Your task to perform on an android device: turn on the 24-hour format for clock Image 0: 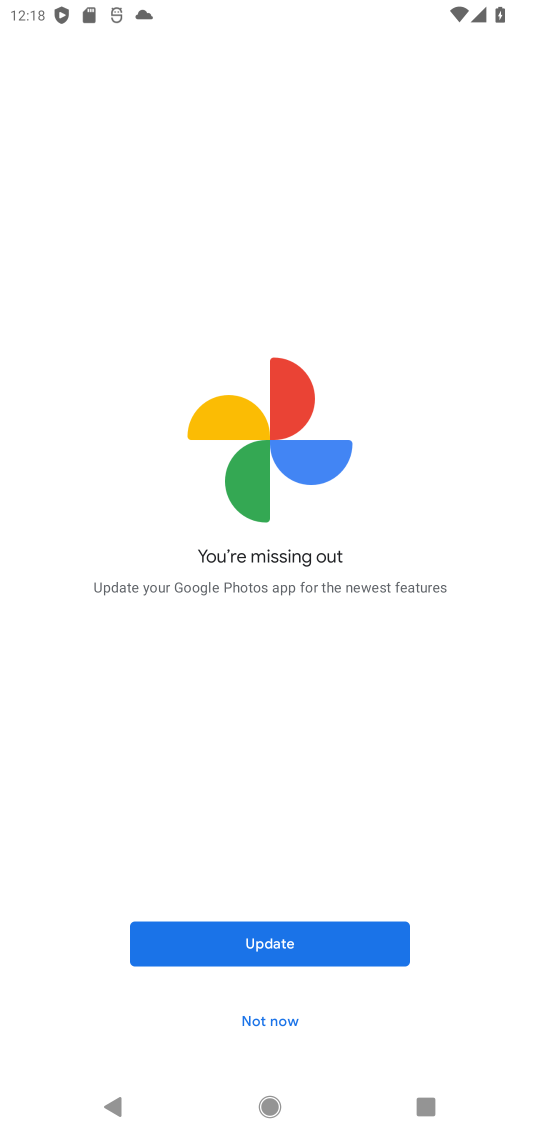
Step 0: press home button
Your task to perform on an android device: turn on the 24-hour format for clock Image 1: 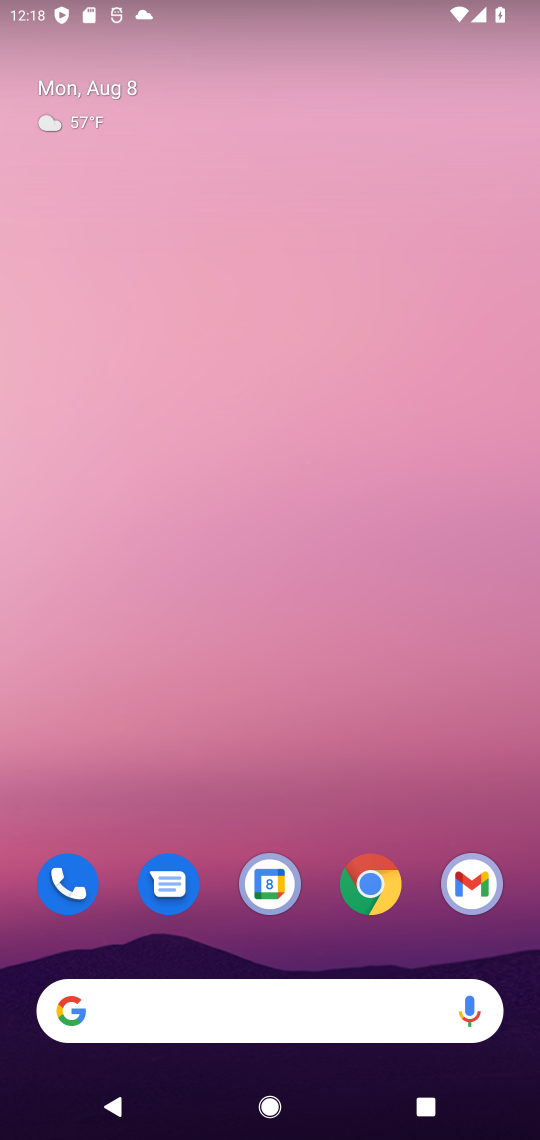
Step 1: drag from (330, 890) to (407, 278)
Your task to perform on an android device: turn on the 24-hour format for clock Image 2: 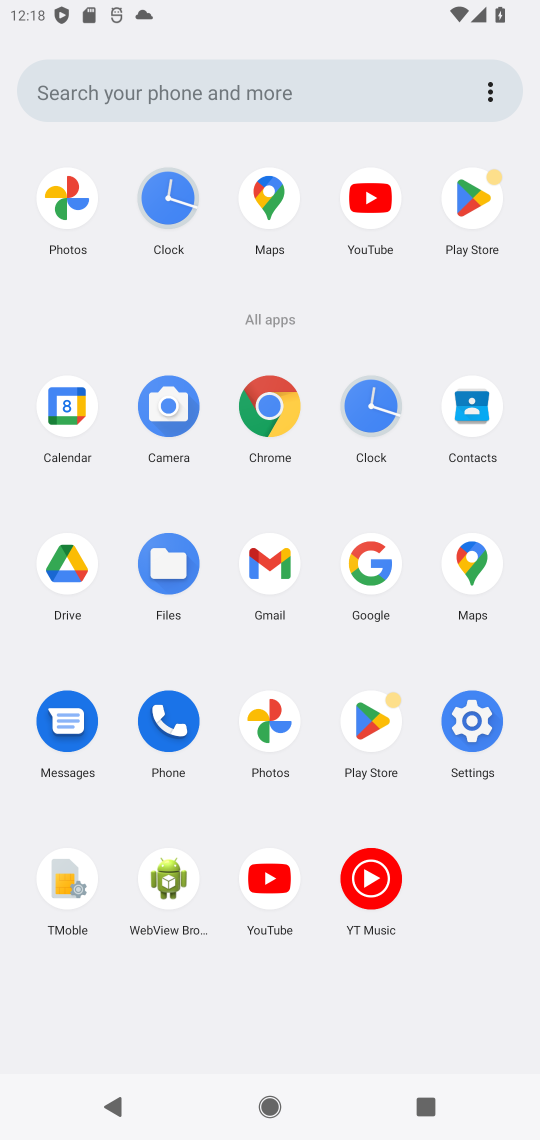
Step 2: click (374, 410)
Your task to perform on an android device: turn on the 24-hour format for clock Image 3: 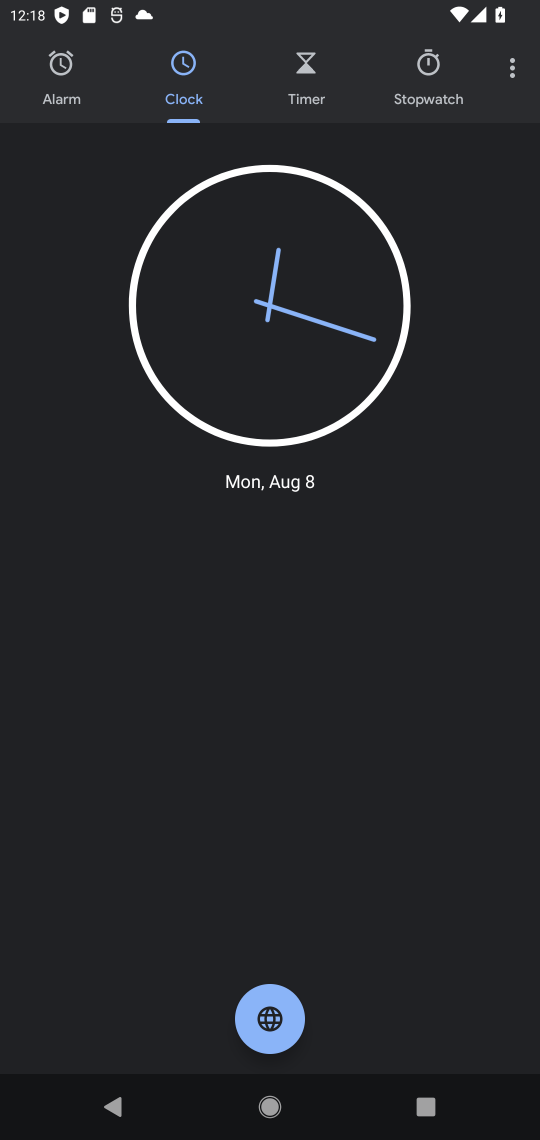
Step 3: click (524, 81)
Your task to perform on an android device: turn on the 24-hour format for clock Image 4: 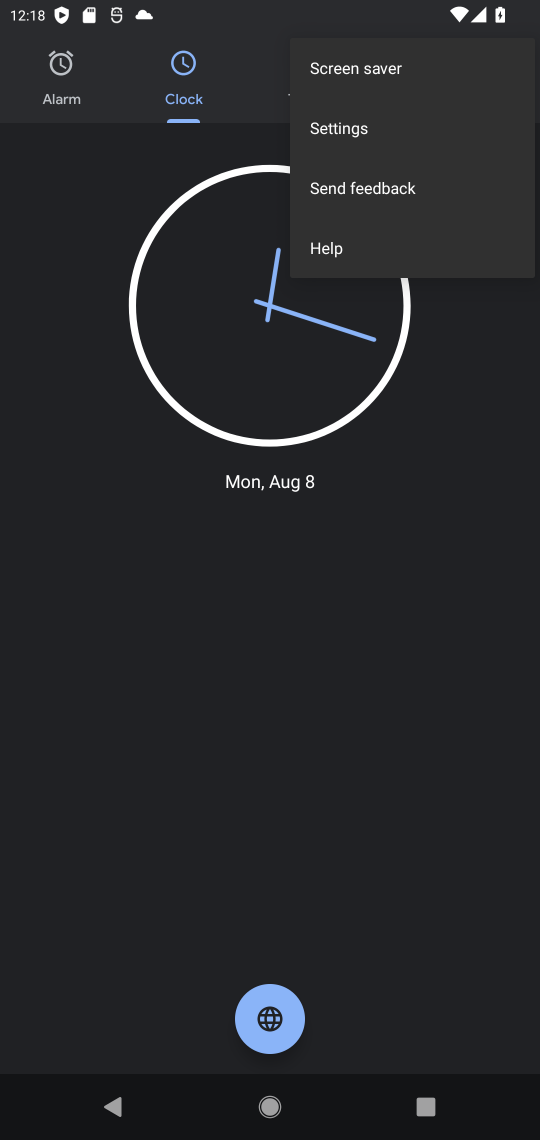
Step 4: click (396, 149)
Your task to perform on an android device: turn on the 24-hour format for clock Image 5: 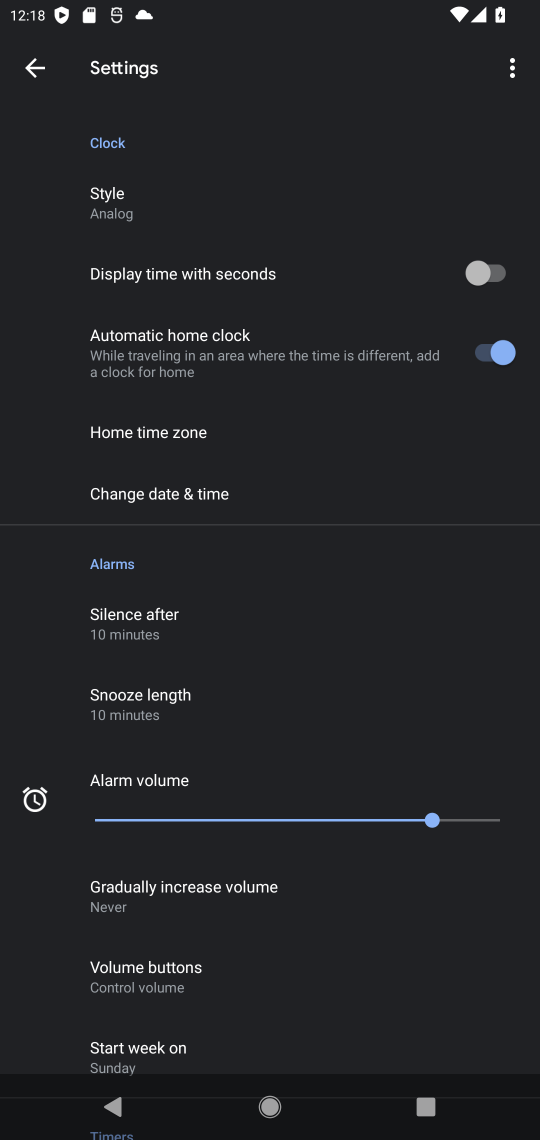
Step 5: click (240, 508)
Your task to perform on an android device: turn on the 24-hour format for clock Image 6: 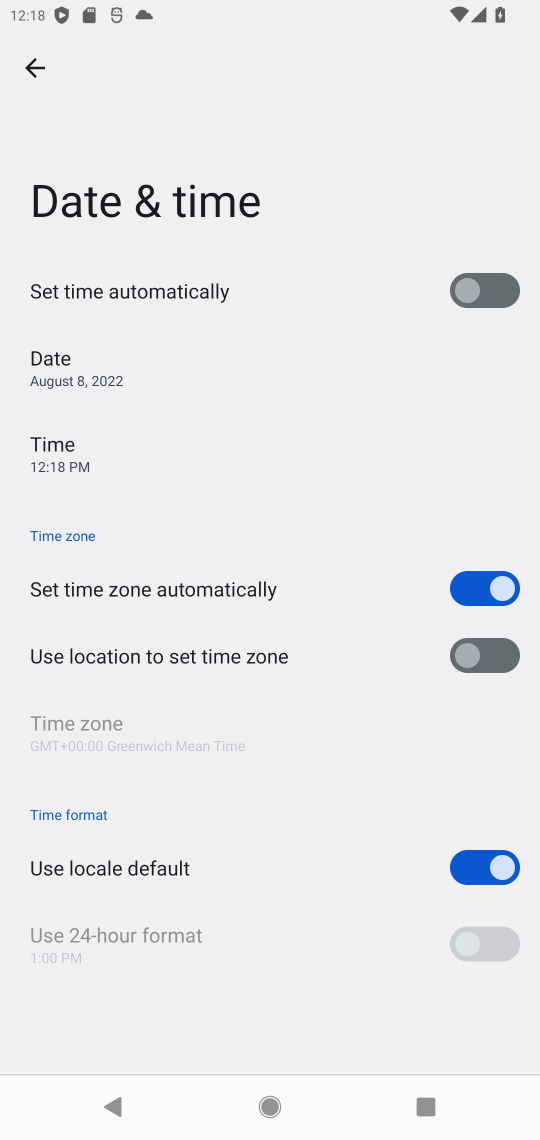
Step 6: click (507, 870)
Your task to perform on an android device: turn on the 24-hour format for clock Image 7: 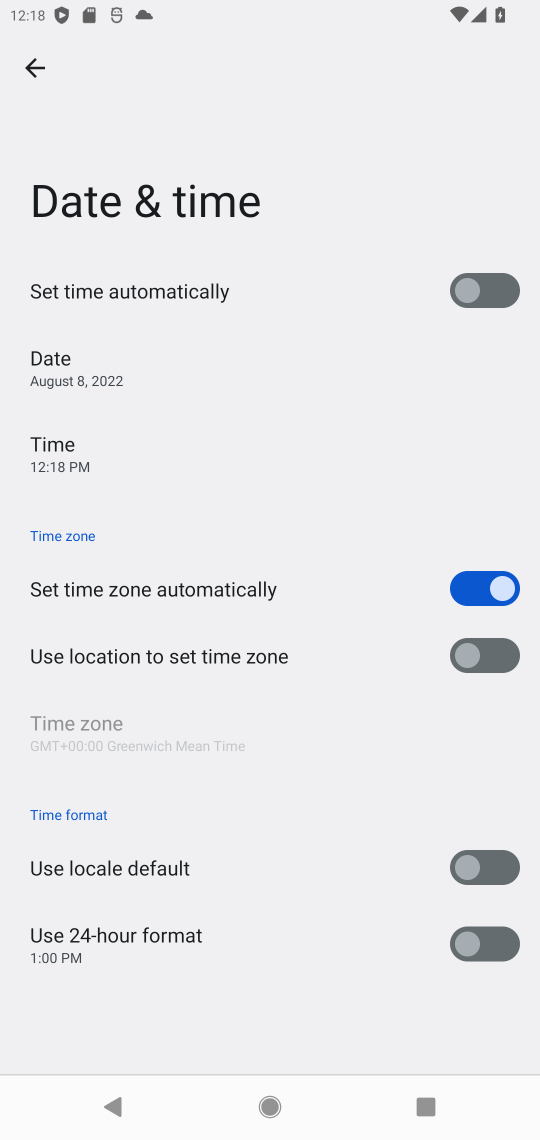
Step 7: click (497, 935)
Your task to perform on an android device: turn on the 24-hour format for clock Image 8: 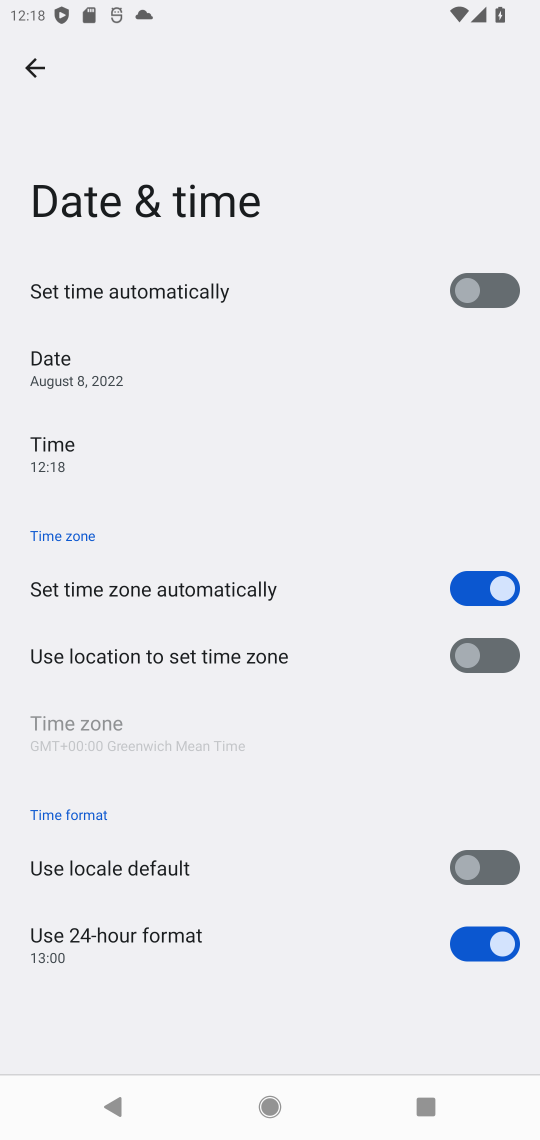
Step 8: task complete